Your task to perform on an android device: turn on sleep mode Image 0: 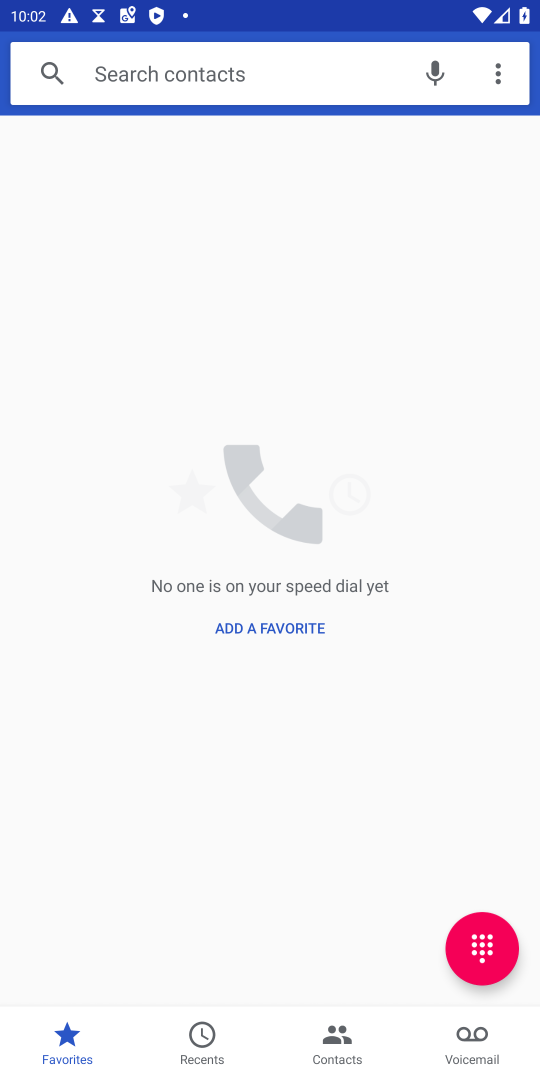
Step 0: press home button
Your task to perform on an android device: turn on sleep mode Image 1: 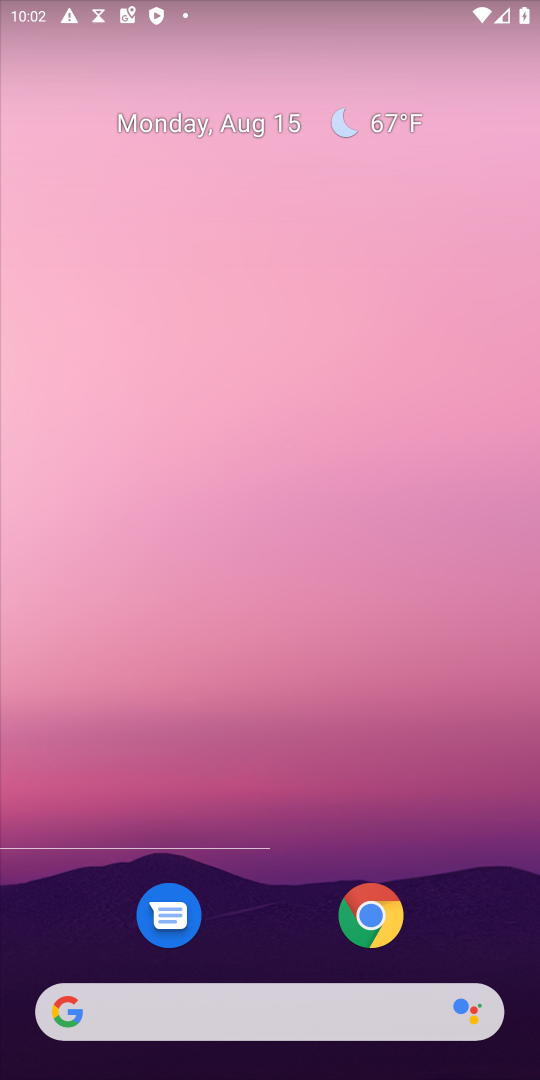
Step 1: drag from (256, 872) to (205, 99)
Your task to perform on an android device: turn on sleep mode Image 2: 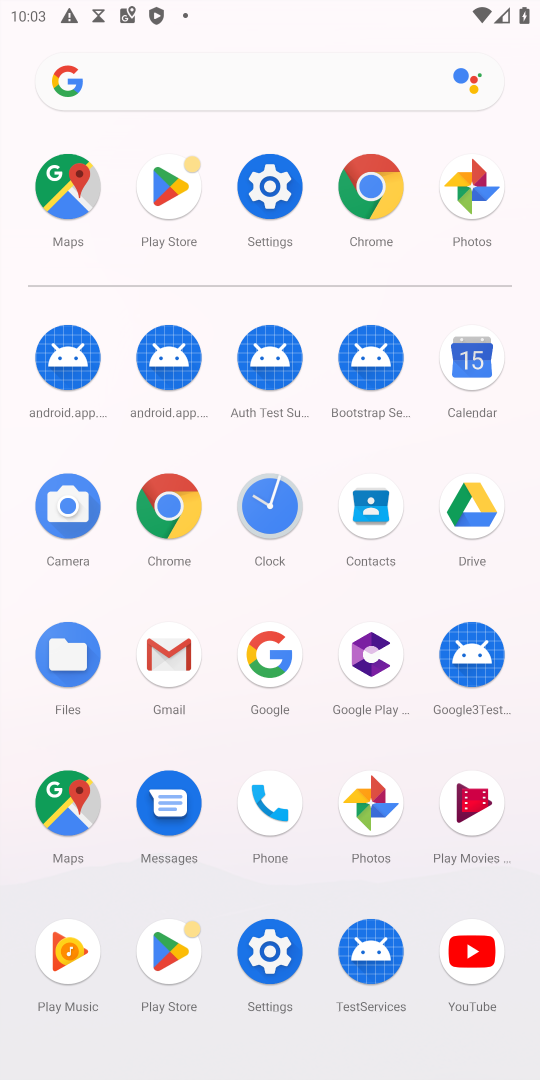
Step 2: click (277, 181)
Your task to perform on an android device: turn on sleep mode Image 3: 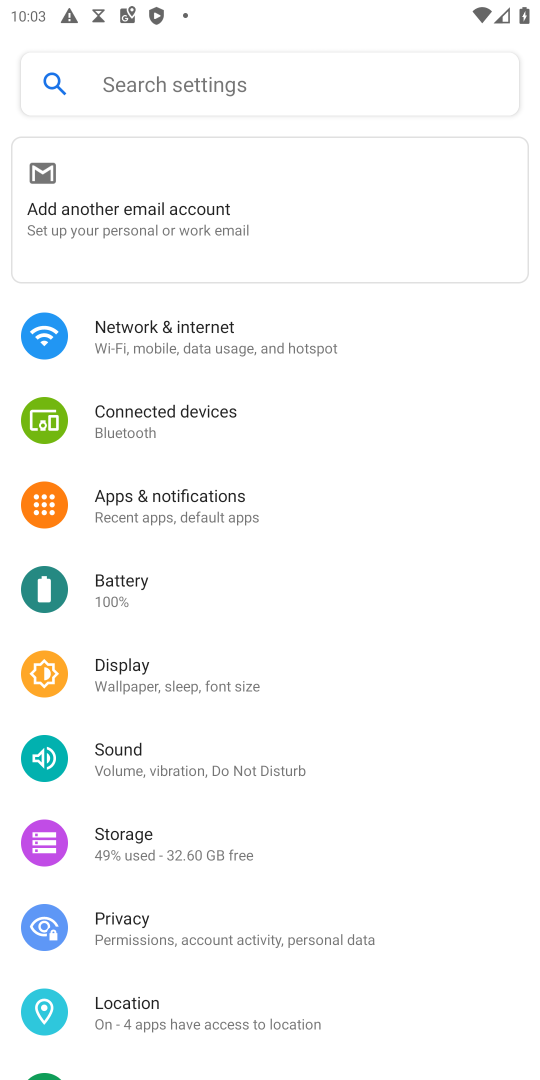
Step 3: click (190, 681)
Your task to perform on an android device: turn on sleep mode Image 4: 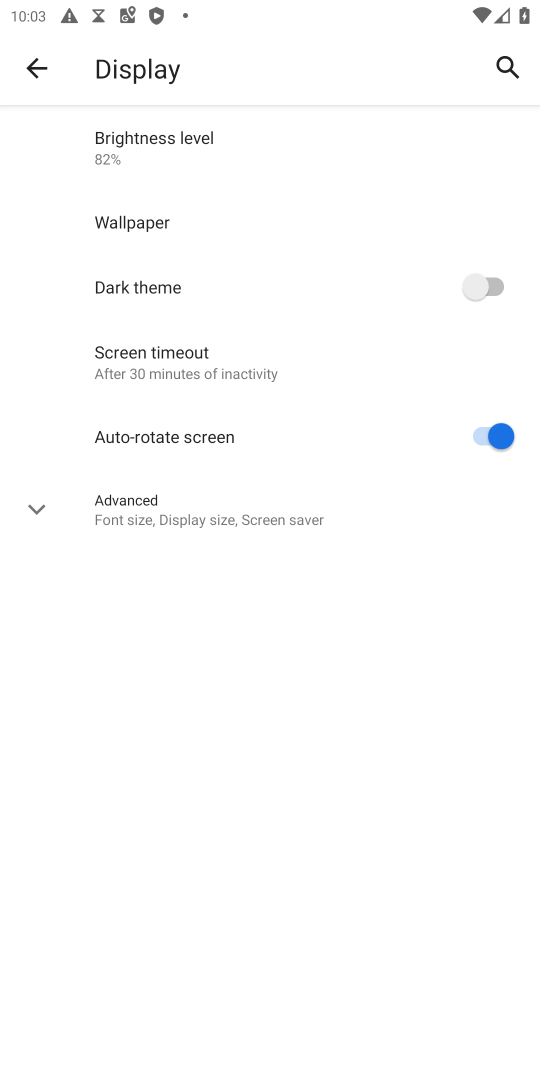
Step 4: task complete